Your task to perform on an android device: make emails show in primary in the gmail app Image 0: 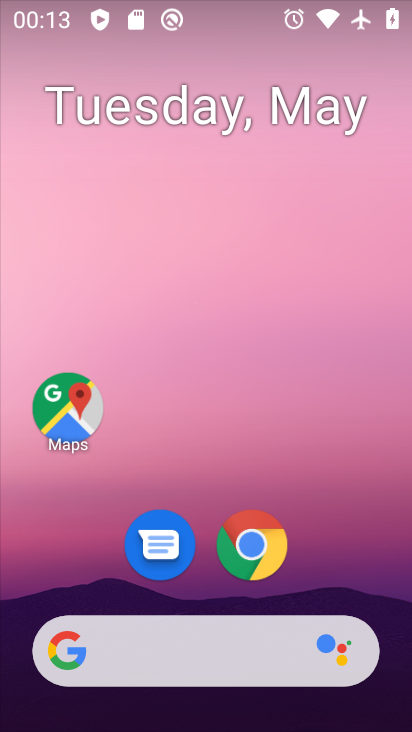
Step 0: drag from (220, 584) to (165, 49)
Your task to perform on an android device: make emails show in primary in the gmail app Image 1: 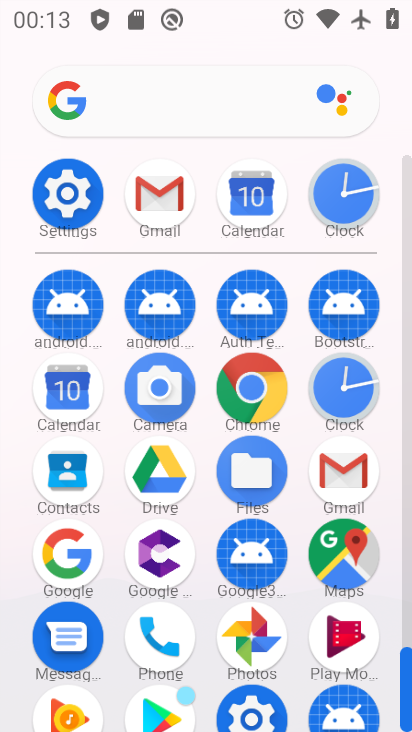
Step 1: click (331, 468)
Your task to perform on an android device: make emails show in primary in the gmail app Image 2: 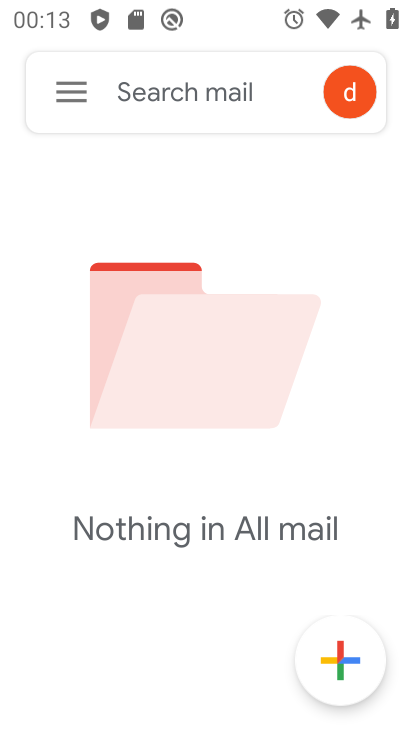
Step 2: click (76, 93)
Your task to perform on an android device: make emails show in primary in the gmail app Image 3: 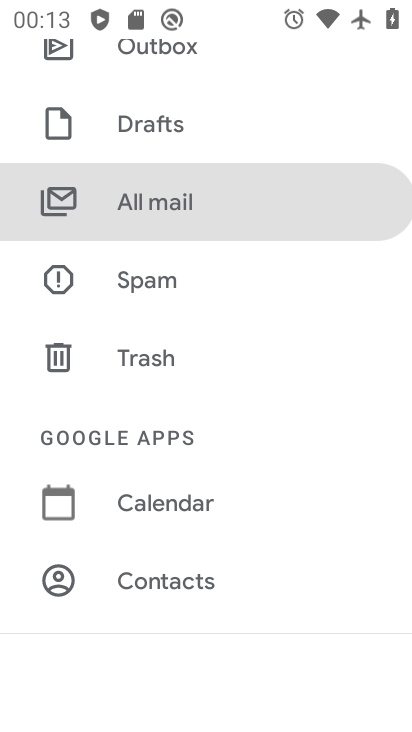
Step 3: drag from (161, 516) to (168, 319)
Your task to perform on an android device: make emails show in primary in the gmail app Image 4: 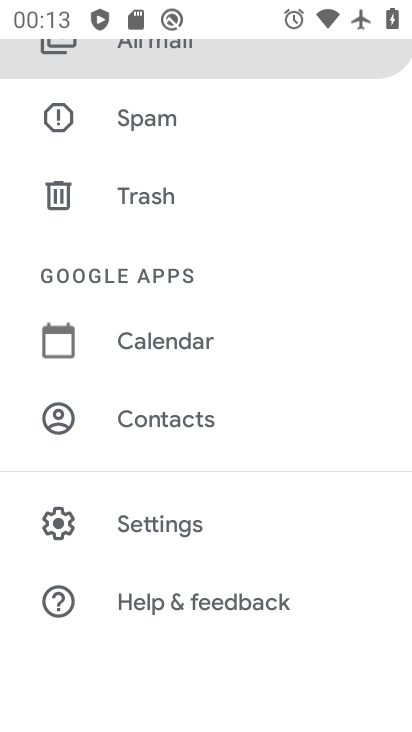
Step 4: click (159, 519)
Your task to perform on an android device: make emails show in primary in the gmail app Image 5: 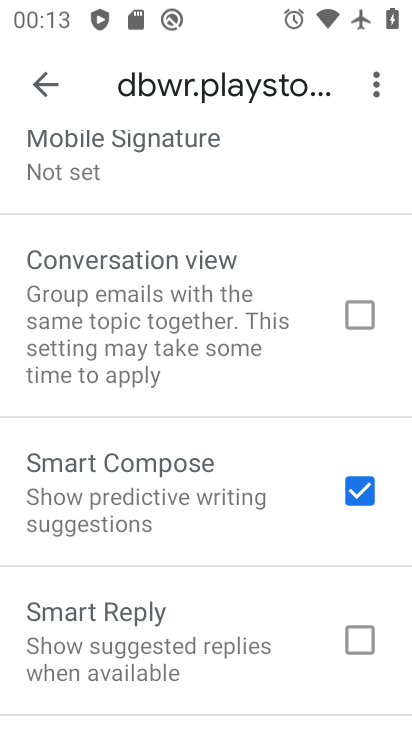
Step 5: drag from (172, 365) to (217, 496)
Your task to perform on an android device: make emails show in primary in the gmail app Image 6: 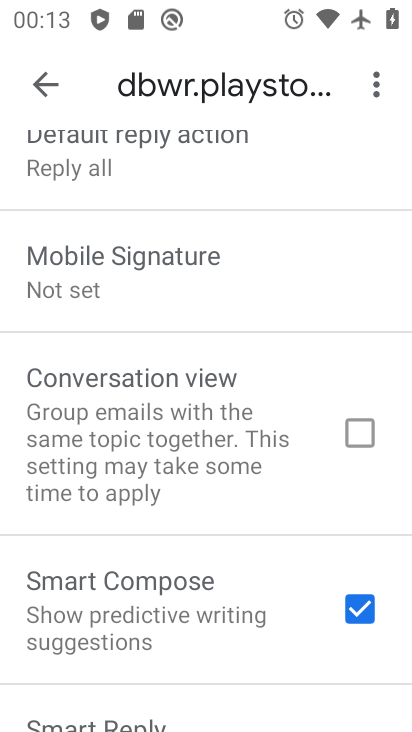
Step 6: drag from (183, 354) to (239, 560)
Your task to perform on an android device: make emails show in primary in the gmail app Image 7: 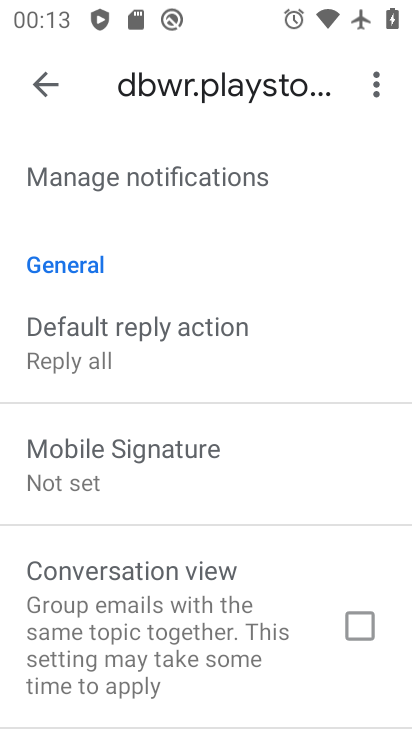
Step 7: drag from (140, 306) to (180, 400)
Your task to perform on an android device: make emails show in primary in the gmail app Image 8: 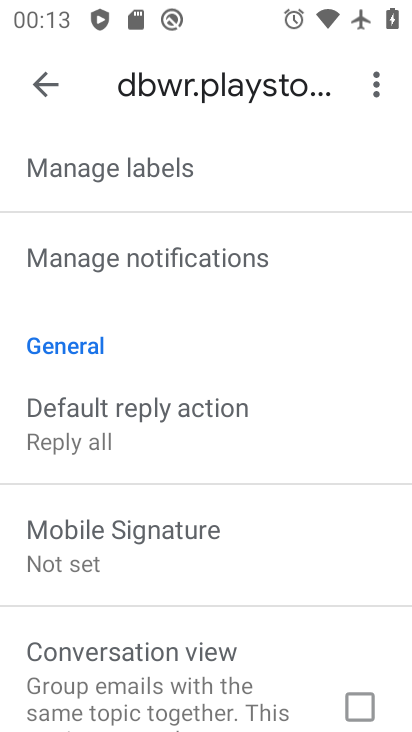
Step 8: drag from (136, 295) to (168, 422)
Your task to perform on an android device: make emails show in primary in the gmail app Image 9: 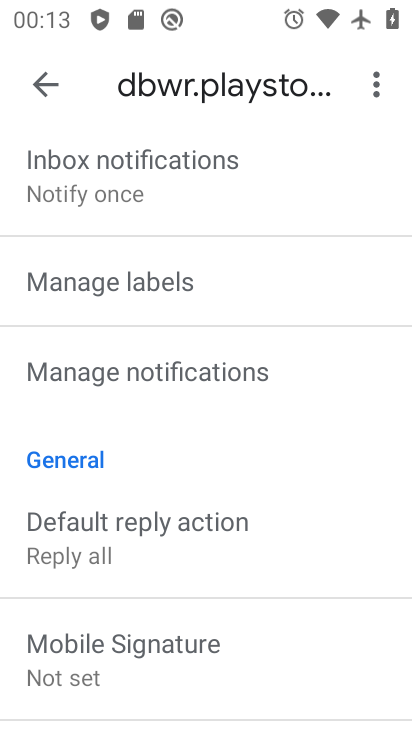
Step 9: drag from (148, 365) to (184, 437)
Your task to perform on an android device: make emails show in primary in the gmail app Image 10: 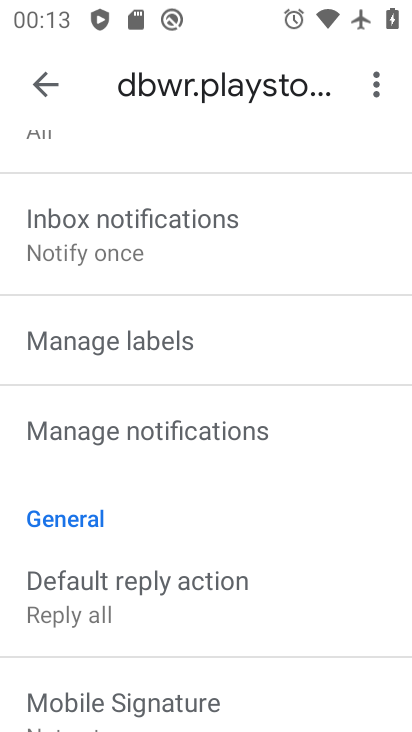
Step 10: drag from (160, 379) to (176, 446)
Your task to perform on an android device: make emails show in primary in the gmail app Image 11: 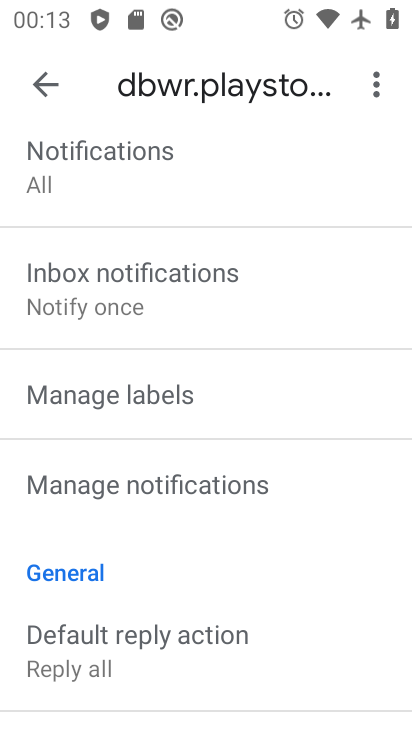
Step 11: drag from (150, 364) to (159, 423)
Your task to perform on an android device: make emails show in primary in the gmail app Image 12: 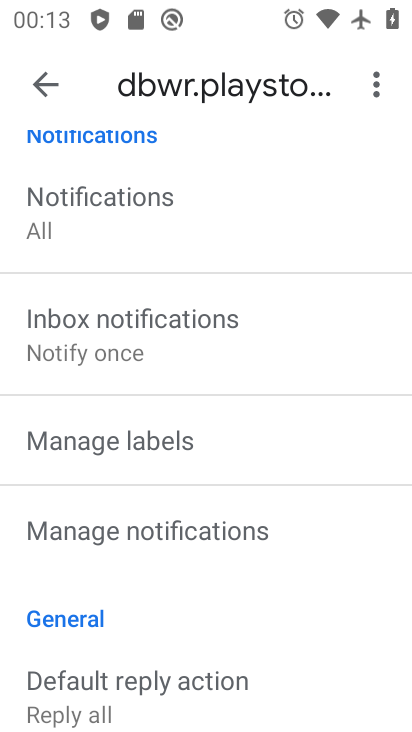
Step 12: drag from (138, 336) to (170, 422)
Your task to perform on an android device: make emails show in primary in the gmail app Image 13: 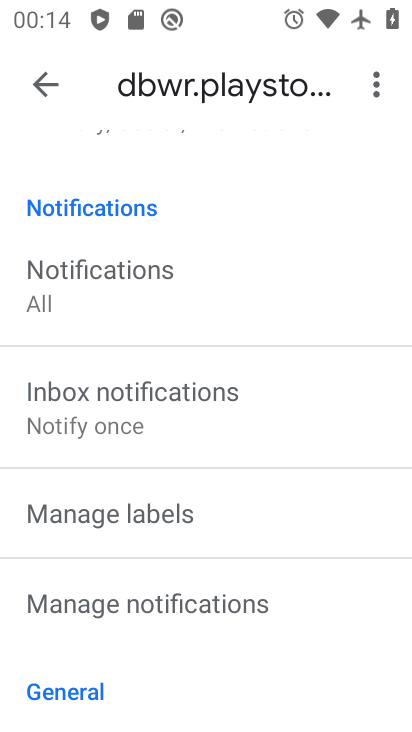
Step 13: drag from (141, 330) to (173, 438)
Your task to perform on an android device: make emails show in primary in the gmail app Image 14: 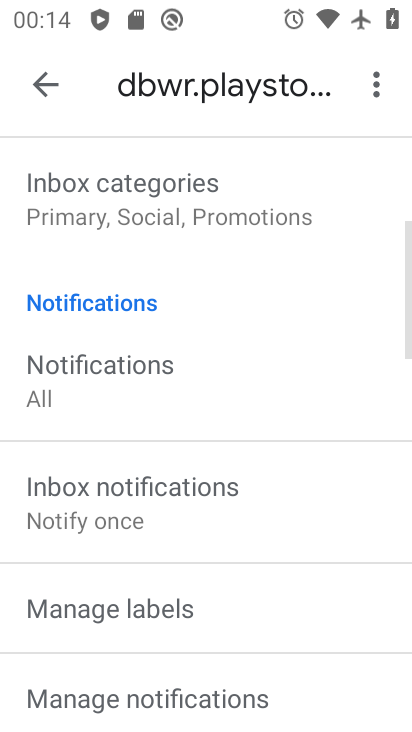
Step 14: drag from (147, 366) to (154, 571)
Your task to perform on an android device: make emails show in primary in the gmail app Image 15: 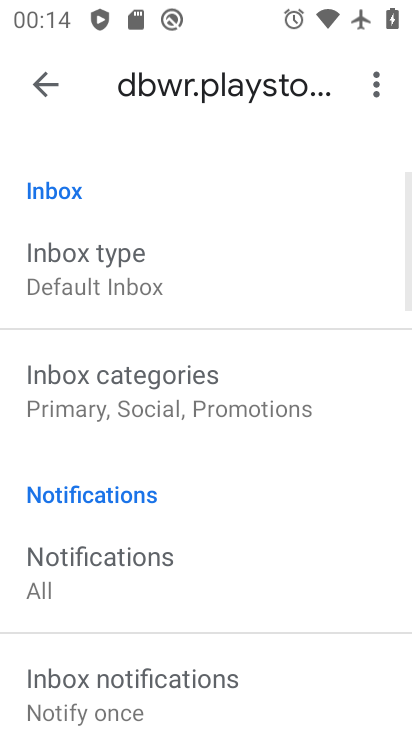
Step 15: click (94, 307)
Your task to perform on an android device: make emails show in primary in the gmail app Image 16: 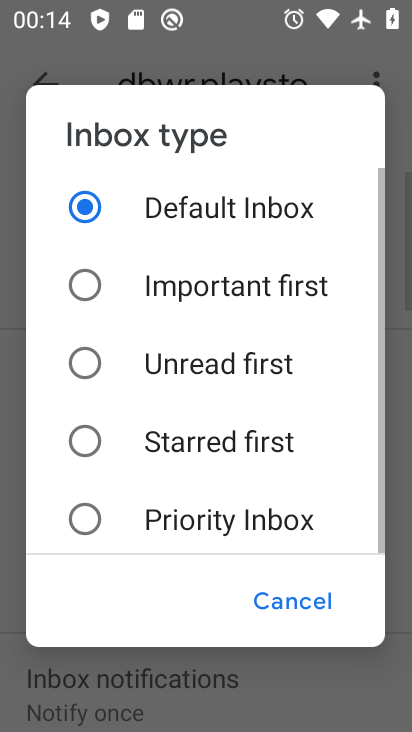
Step 16: click (127, 206)
Your task to perform on an android device: make emails show in primary in the gmail app Image 17: 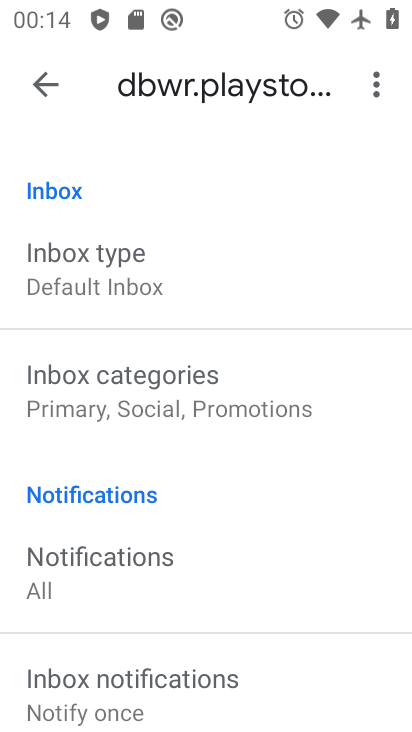
Step 17: task complete